Your task to perform on an android device: turn off picture-in-picture Image 0: 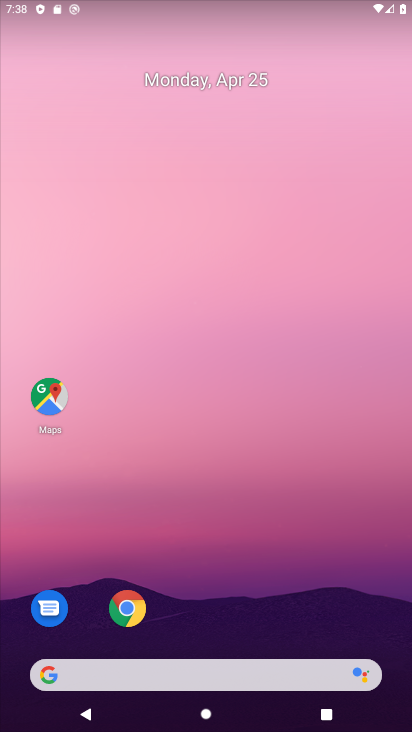
Step 0: drag from (201, 571) to (224, 93)
Your task to perform on an android device: turn off picture-in-picture Image 1: 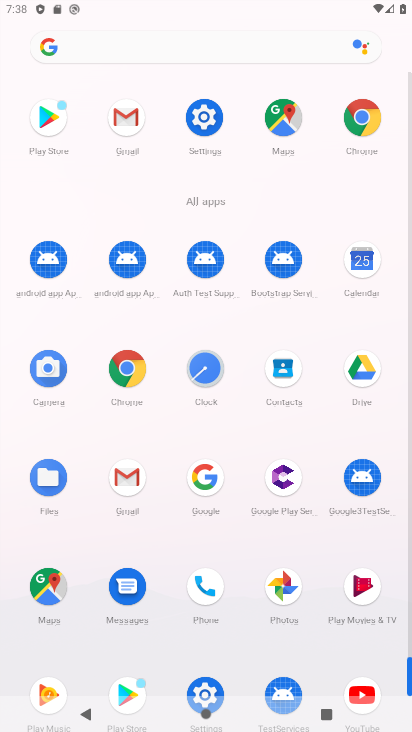
Step 1: click (212, 114)
Your task to perform on an android device: turn off picture-in-picture Image 2: 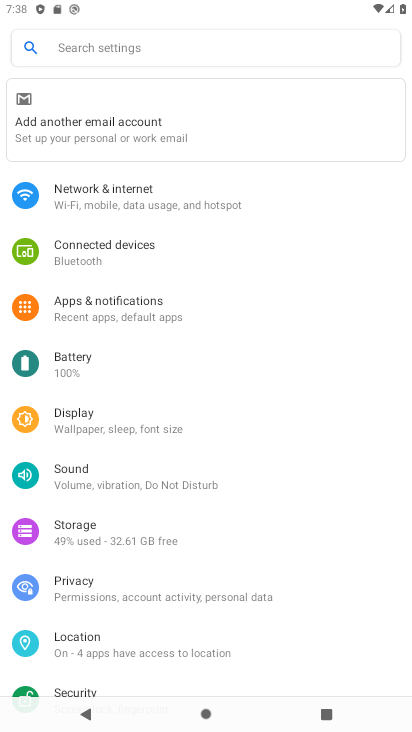
Step 2: click (124, 309)
Your task to perform on an android device: turn off picture-in-picture Image 3: 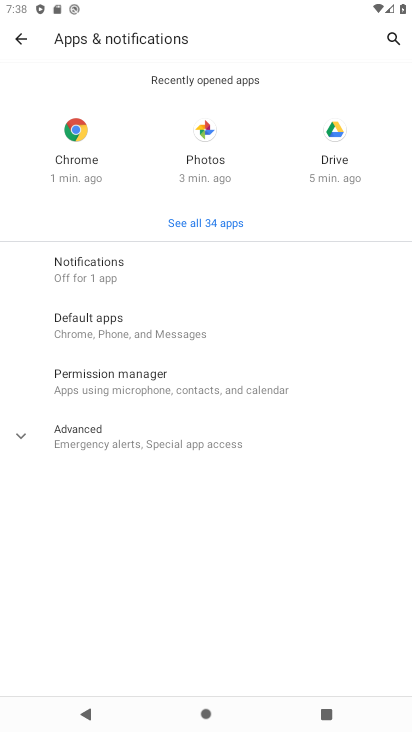
Step 3: click (152, 435)
Your task to perform on an android device: turn off picture-in-picture Image 4: 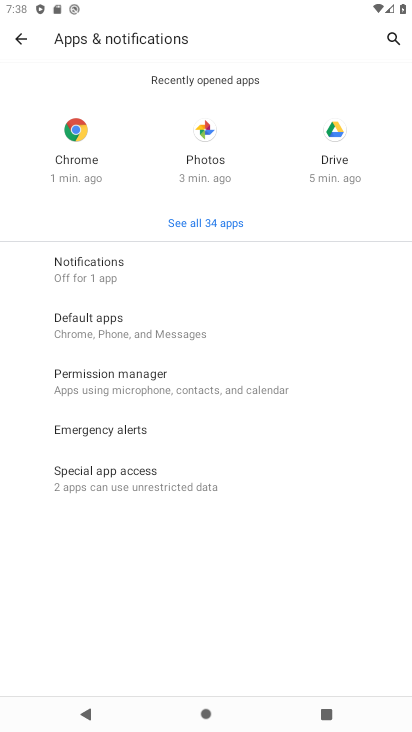
Step 4: click (152, 476)
Your task to perform on an android device: turn off picture-in-picture Image 5: 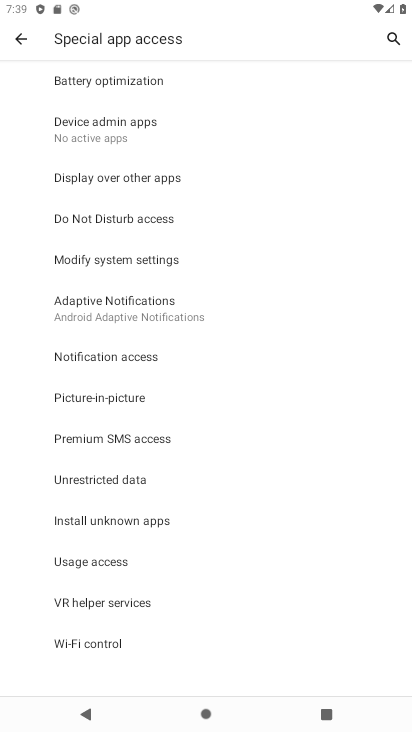
Step 5: click (123, 398)
Your task to perform on an android device: turn off picture-in-picture Image 6: 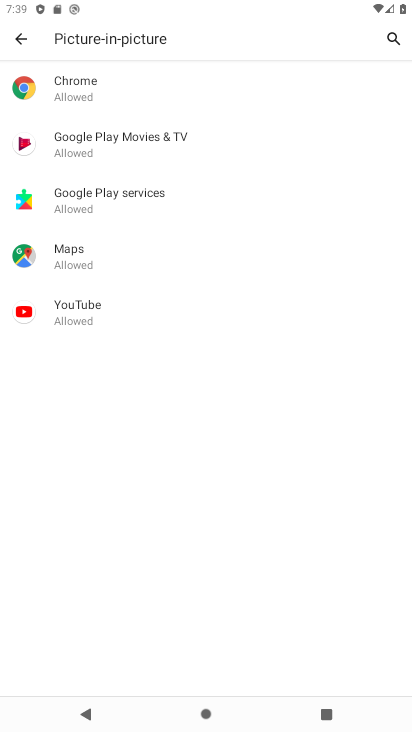
Step 6: click (95, 90)
Your task to perform on an android device: turn off picture-in-picture Image 7: 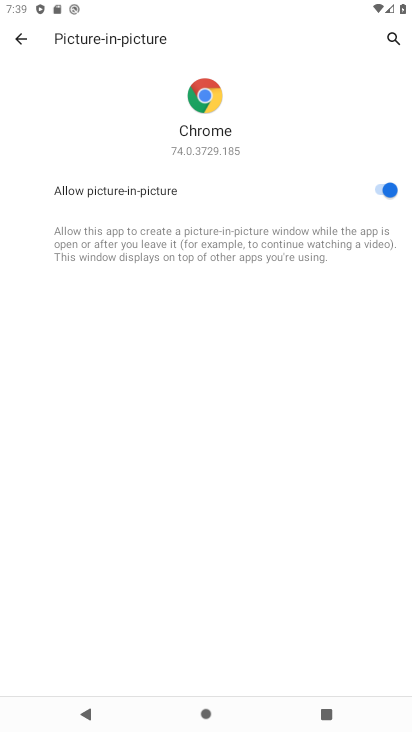
Step 7: click (378, 189)
Your task to perform on an android device: turn off picture-in-picture Image 8: 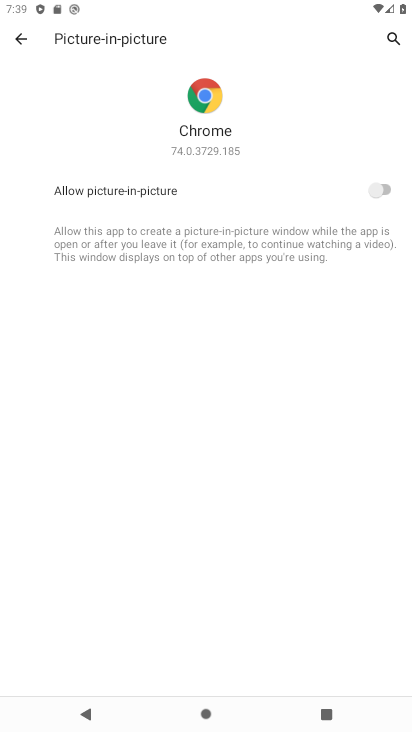
Step 8: click (21, 37)
Your task to perform on an android device: turn off picture-in-picture Image 9: 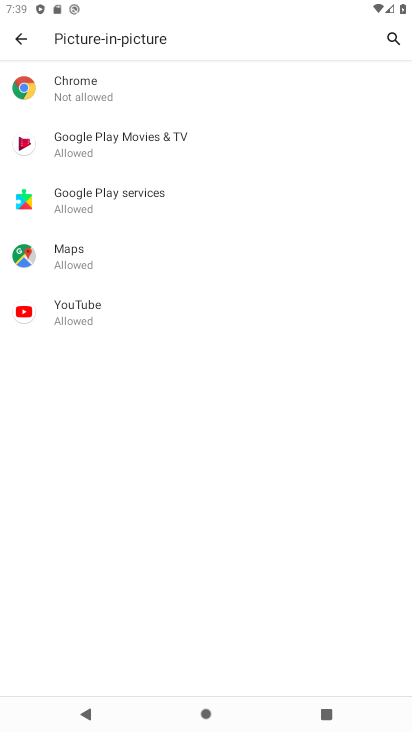
Step 9: click (126, 153)
Your task to perform on an android device: turn off picture-in-picture Image 10: 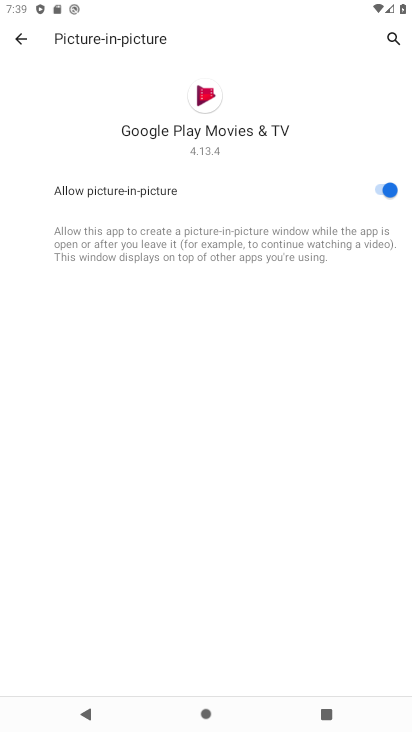
Step 10: click (377, 191)
Your task to perform on an android device: turn off picture-in-picture Image 11: 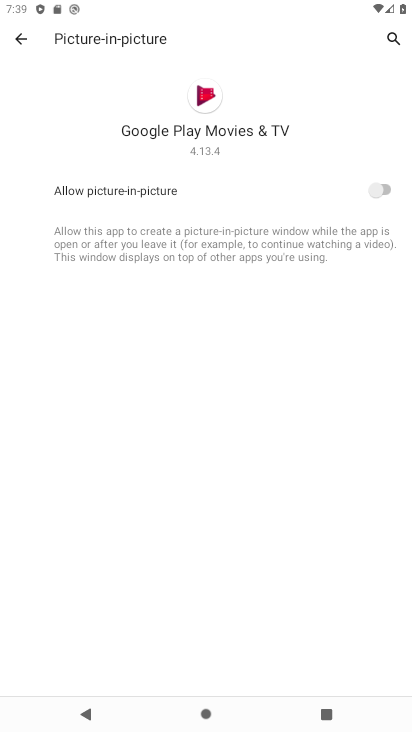
Step 11: click (13, 43)
Your task to perform on an android device: turn off picture-in-picture Image 12: 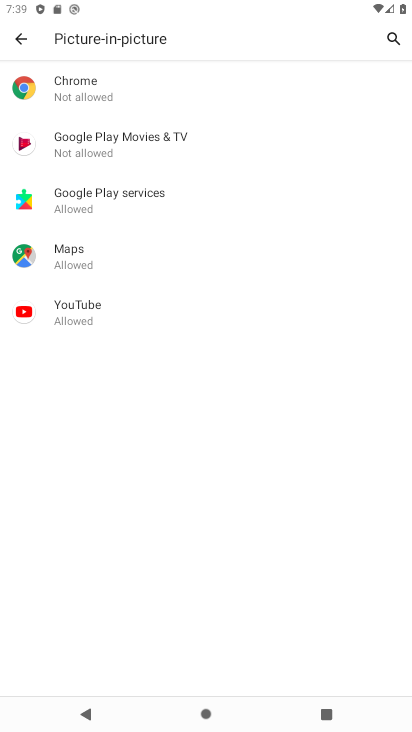
Step 12: click (79, 195)
Your task to perform on an android device: turn off picture-in-picture Image 13: 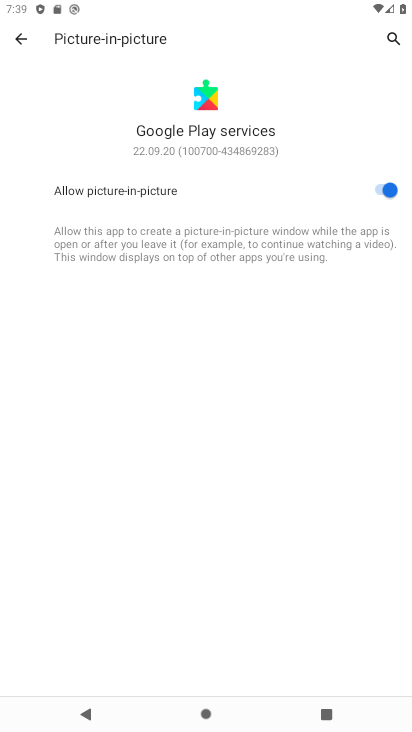
Step 13: click (379, 187)
Your task to perform on an android device: turn off picture-in-picture Image 14: 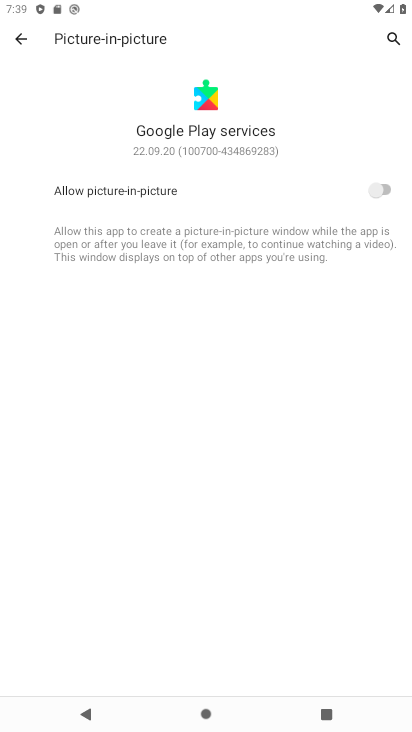
Step 14: click (22, 38)
Your task to perform on an android device: turn off picture-in-picture Image 15: 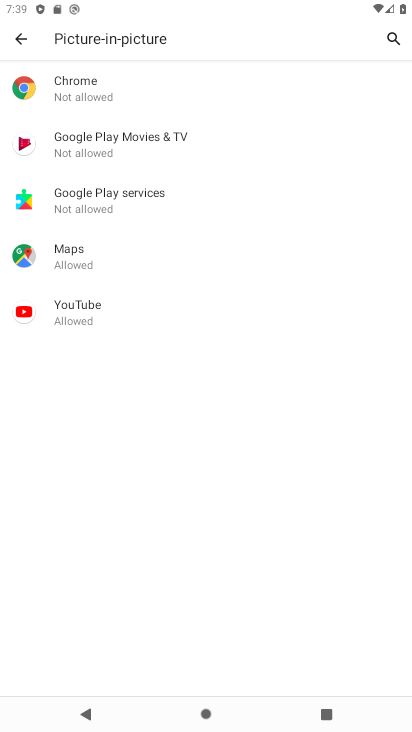
Step 15: click (75, 258)
Your task to perform on an android device: turn off picture-in-picture Image 16: 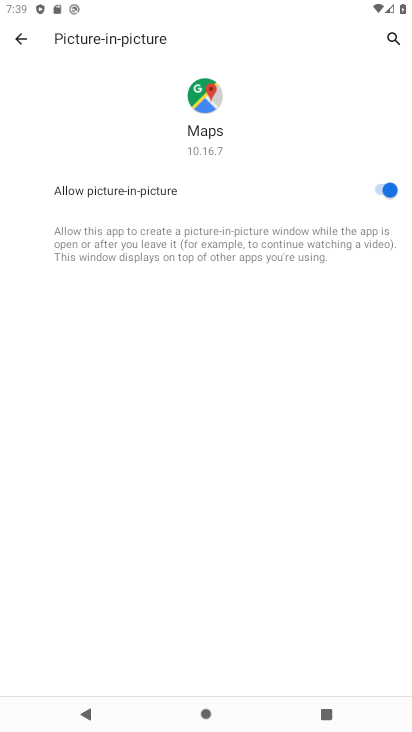
Step 16: click (379, 189)
Your task to perform on an android device: turn off picture-in-picture Image 17: 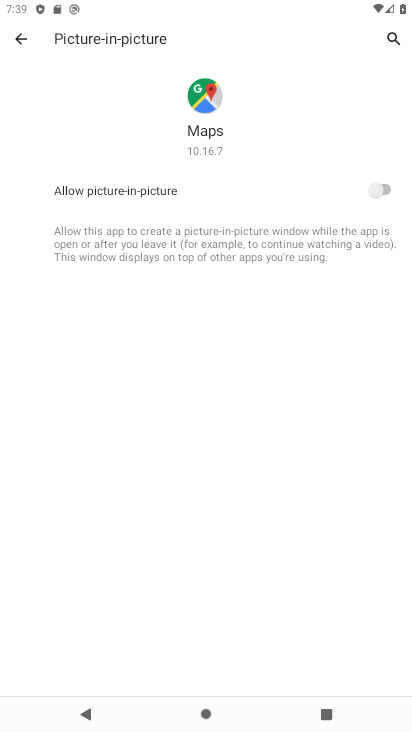
Step 17: click (17, 38)
Your task to perform on an android device: turn off picture-in-picture Image 18: 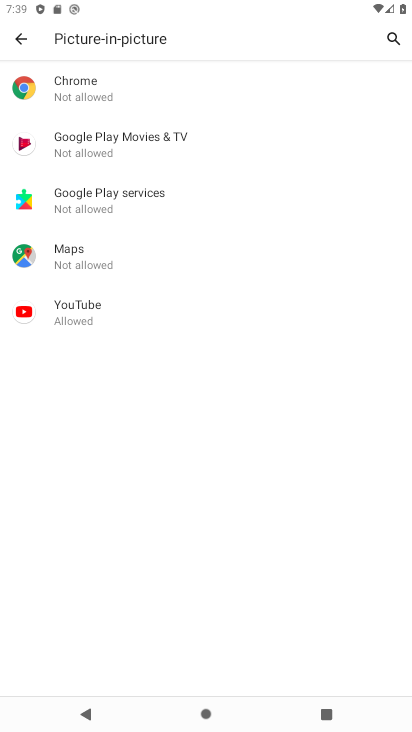
Step 18: click (90, 307)
Your task to perform on an android device: turn off picture-in-picture Image 19: 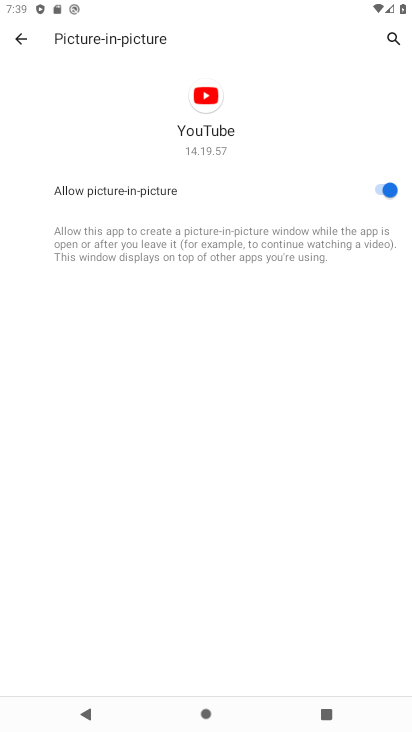
Step 19: click (378, 188)
Your task to perform on an android device: turn off picture-in-picture Image 20: 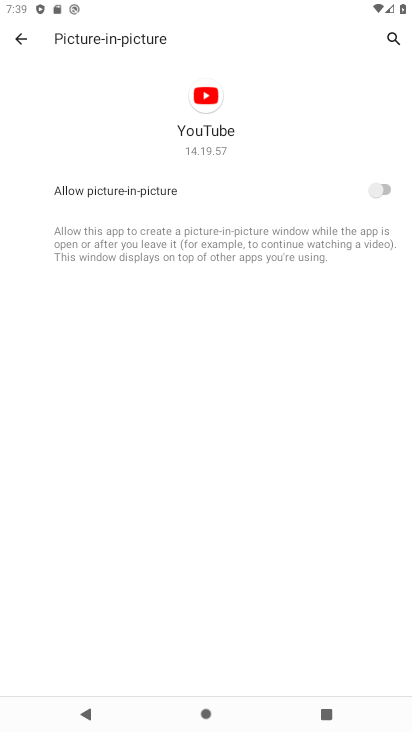
Step 20: task complete